Your task to perform on an android device: Go to wifi settings Image 0: 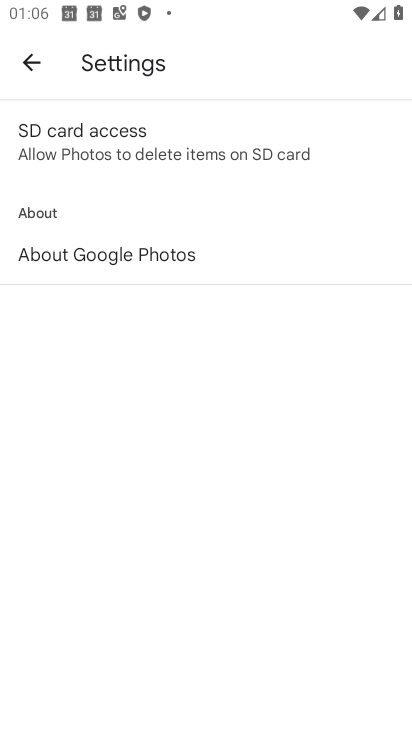
Step 0: press home button
Your task to perform on an android device: Go to wifi settings Image 1: 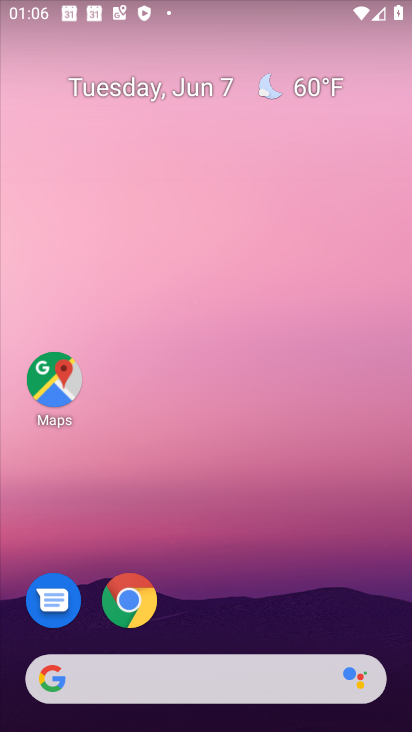
Step 1: drag from (206, 726) to (208, 36)
Your task to perform on an android device: Go to wifi settings Image 2: 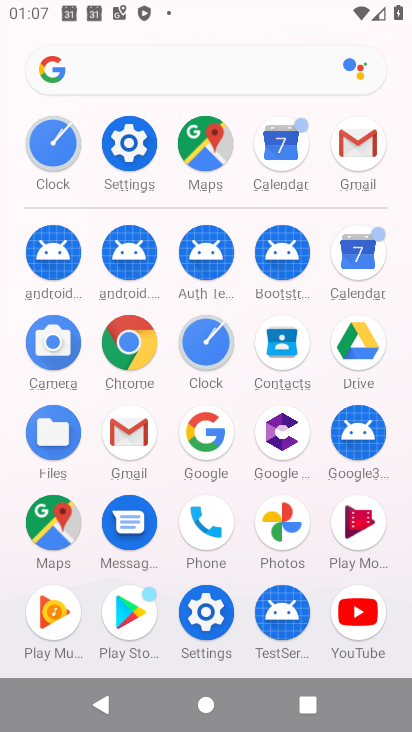
Step 2: click (124, 147)
Your task to perform on an android device: Go to wifi settings Image 3: 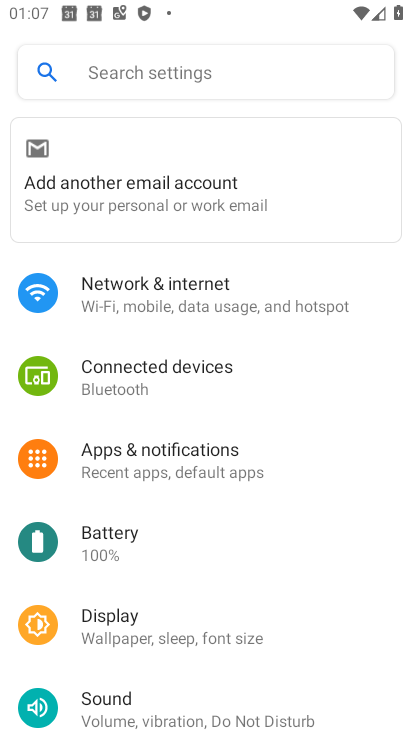
Step 3: click (188, 295)
Your task to perform on an android device: Go to wifi settings Image 4: 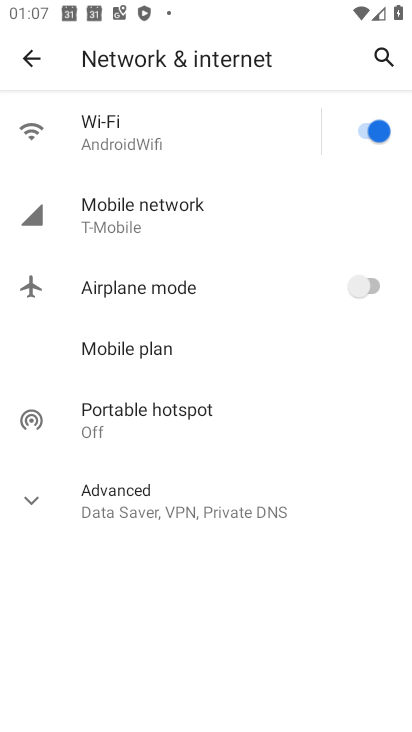
Step 4: click (116, 136)
Your task to perform on an android device: Go to wifi settings Image 5: 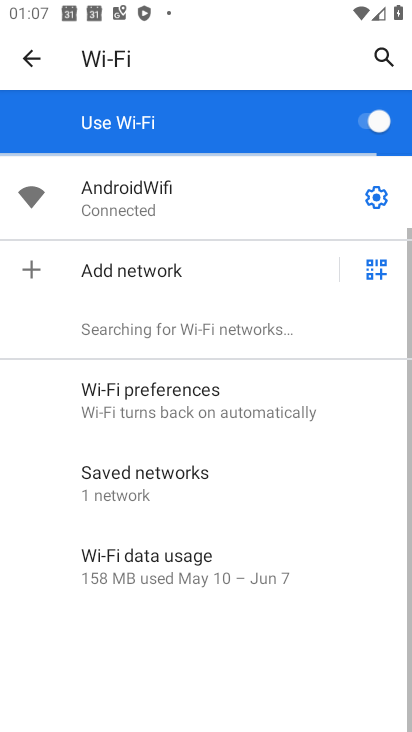
Step 5: task complete